Your task to perform on an android device: turn on the 12-hour format for clock Image 0: 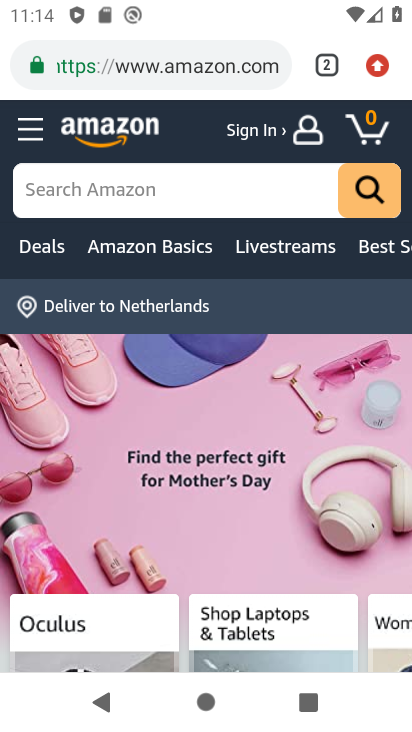
Step 0: press home button
Your task to perform on an android device: turn on the 12-hour format for clock Image 1: 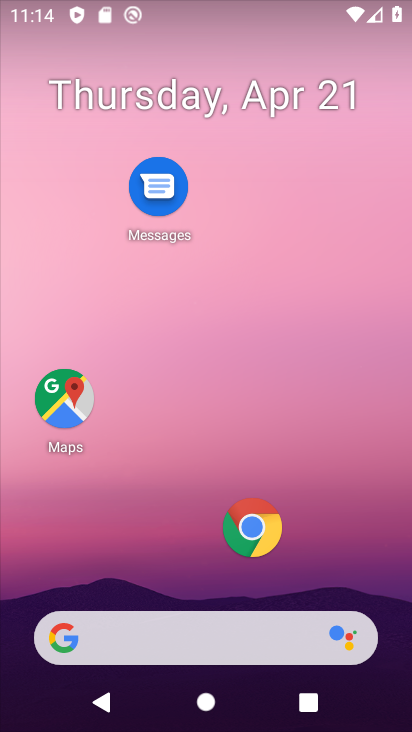
Step 1: drag from (214, 604) to (332, 490)
Your task to perform on an android device: turn on the 12-hour format for clock Image 2: 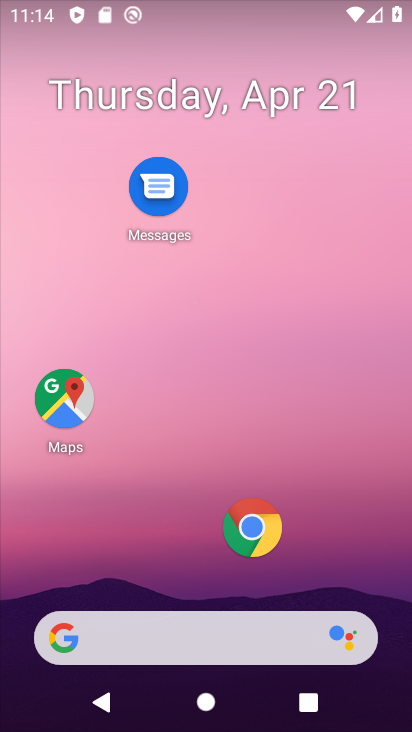
Step 2: drag from (201, 591) to (383, 393)
Your task to perform on an android device: turn on the 12-hour format for clock Image 3: 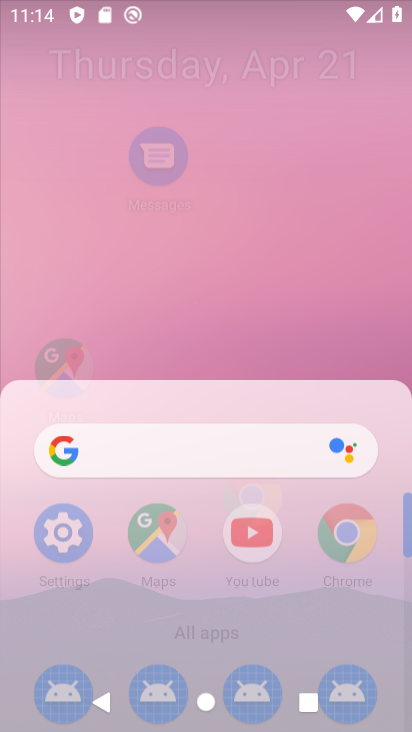
Step 3: click (355, 417)
Your task to perform on an android device: turn on the 12-hour format for clock Image 4: 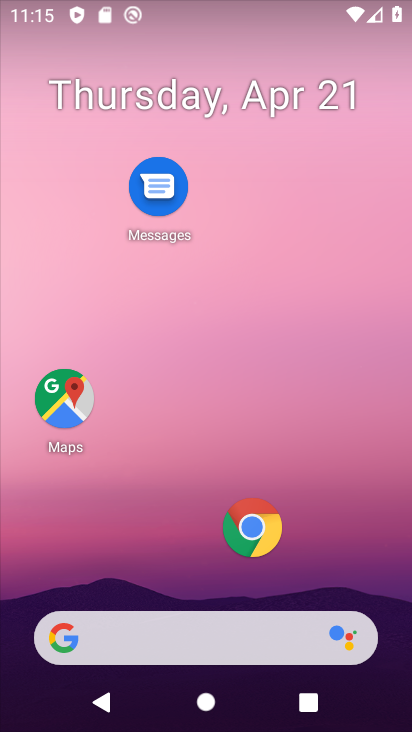
Step 4: drag from (226, 596) to (353, 728)
Your task to perform on an android device: turn on the 12-hour format for clock Image 5: 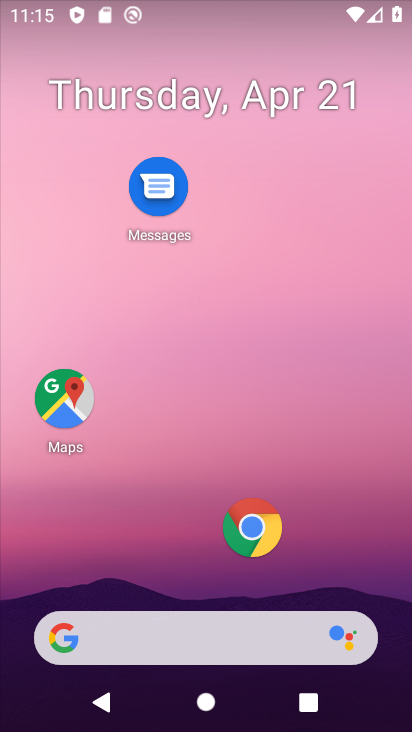
Step 5: click (337, 450)
Your task to perform on an android device: turn on the 12-hour format for clock Image 6: 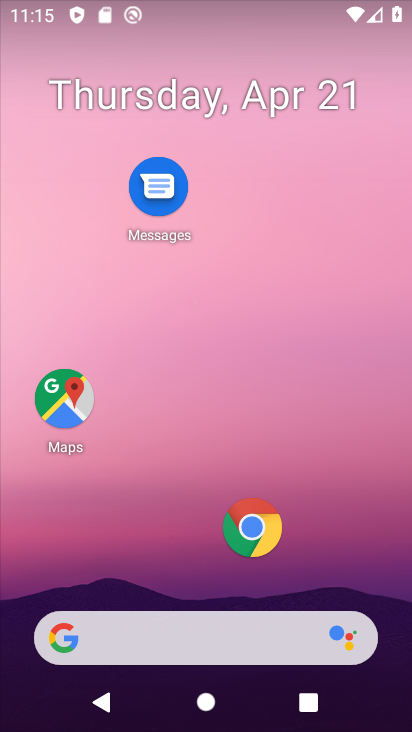
Step 6: drag from (225, 588) to (361, 8)
Your task to perform on an android device: turn on the 12-hour format for clock Image 7: 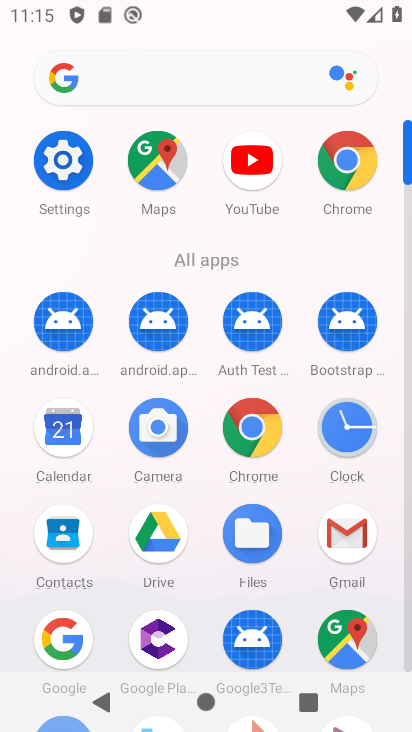
Step 7: click (354, 424)
Your task to perform on an android device: turn on the 12-hour format for clock Image 8: 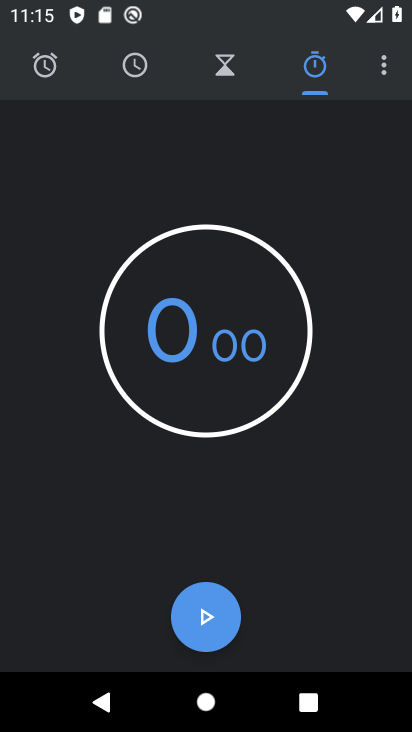
Step 8: click (374, 84)
Your task to perform on an android device: turn on the 12-hour format for clock Image 9: 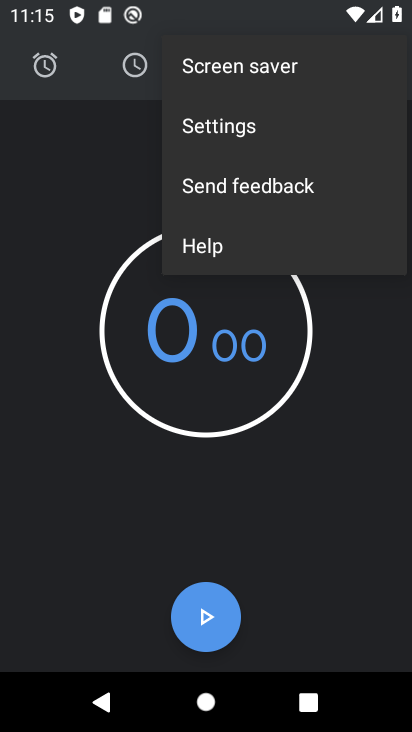
Step 9: click (262, 136)
Your task to perform on an android device: turn on the 12-hour format for clock Image 10: 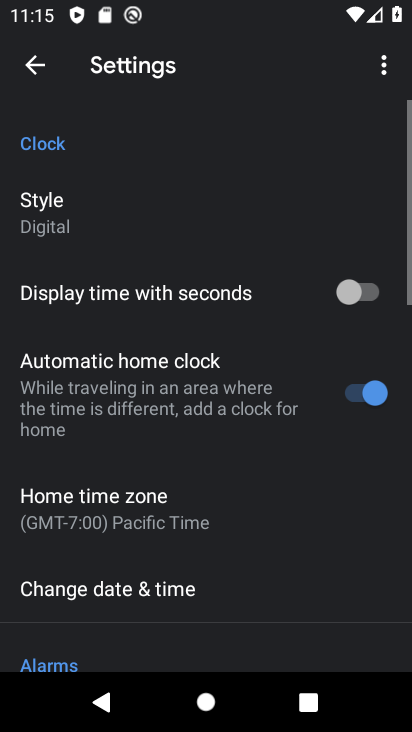
Step 10: drag from (187, 552) to (224, 188)
Your task to perform on an android device: turn on the 12-hour format for clock Image 11: 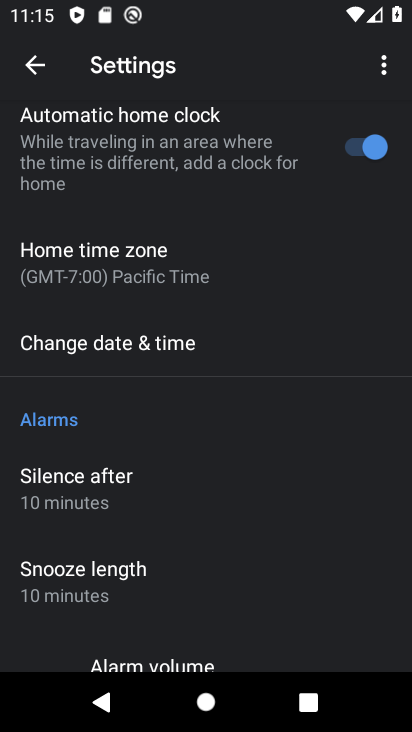
Step 11: click (147, 343)
Your task to perform on an android device: turn on the 12-hour format for clock Image 12: 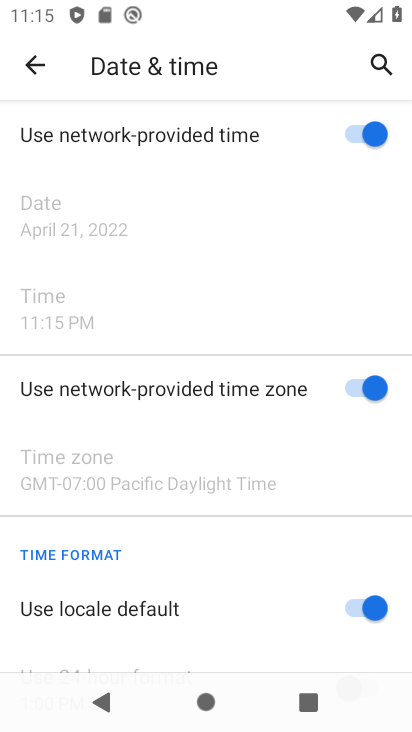
Step 12: task complete